Your task to perform on an android device: Open Yahoo.com Image 0: 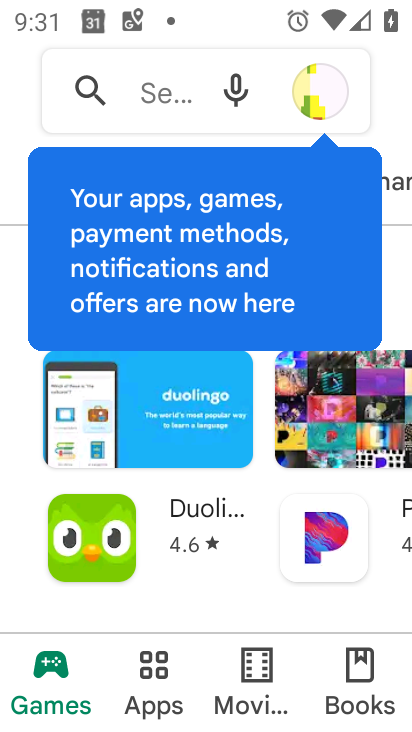
Step 0: press home button
Your task to perform on an android device: Open Yahoo.com Image 1: 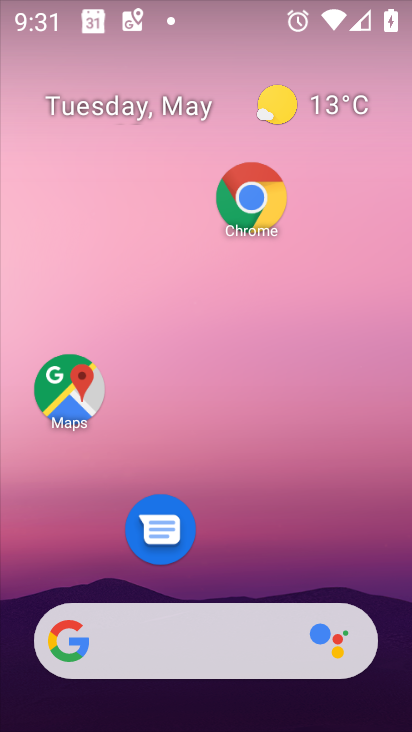
Step 1: click (245, 192)
Your task to perform on an android device: Open Yahoo.com Image 2: 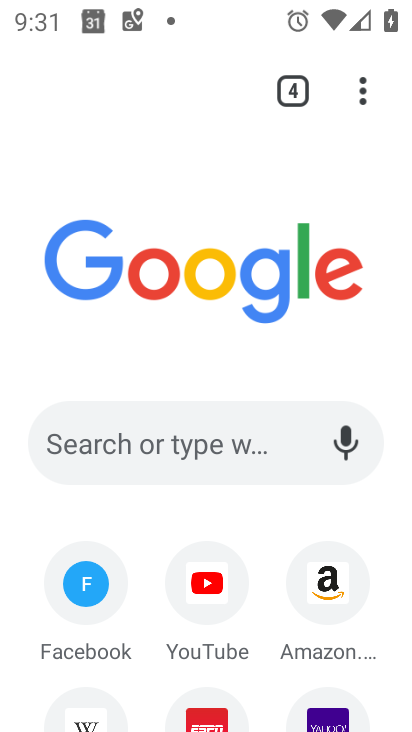
Step 2: click (315, 723)
Your task to perform on an android device: Open Yahoo.com Image 3: 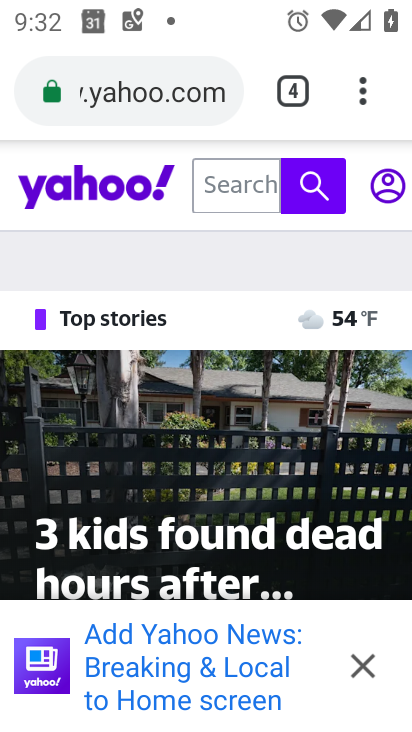
Step 3: click (353, 664)
Your task to perform on an android device: Open Yahoo.com Image 4: 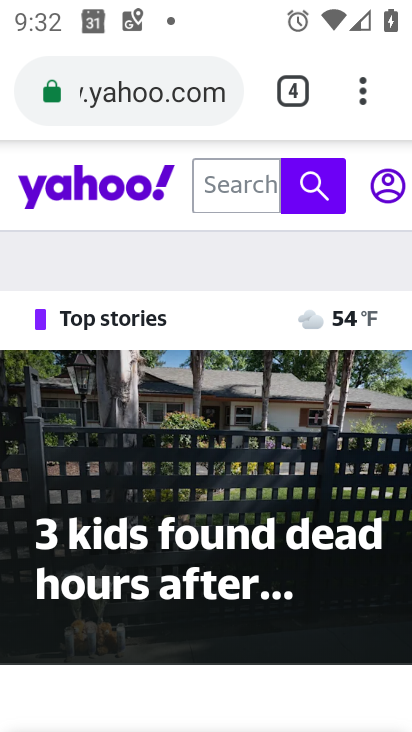
Step 4: task complete